Your task to perform on an android device: change the upload size in google photos Image 0: 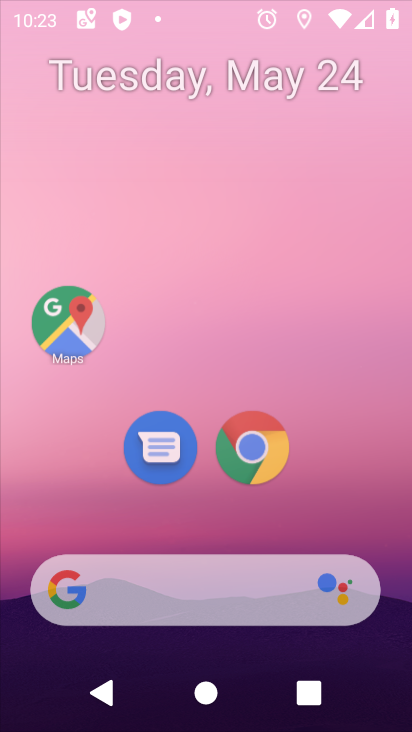
Step 0: drag from (381, 408) to (371, 201)
Your task to perform on an android device: change the upload size in google photos Image 1: 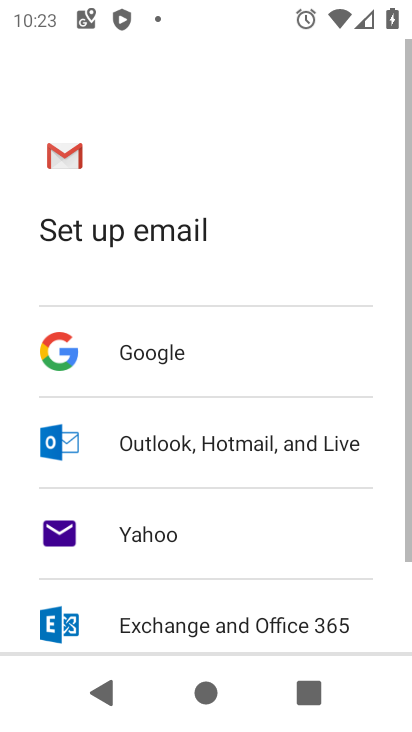
Step 1: press home button
Your task to perform on an android device: change the upload size in google photos Image 2: 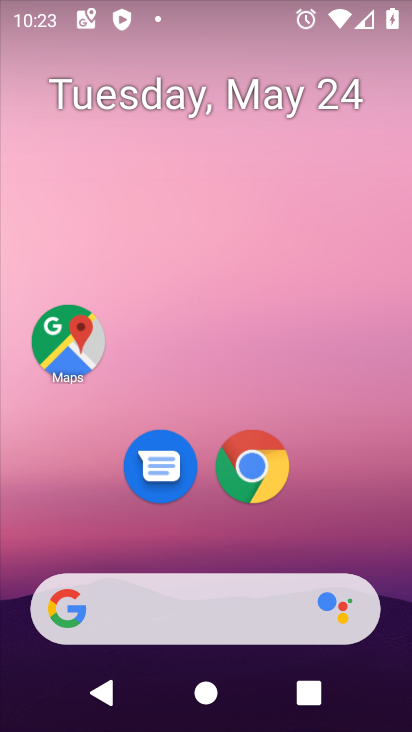
Step 2: drag from (394, 561) to (393, 274)
Your task to perform on an android device: change the upload size in google photos Image 3: 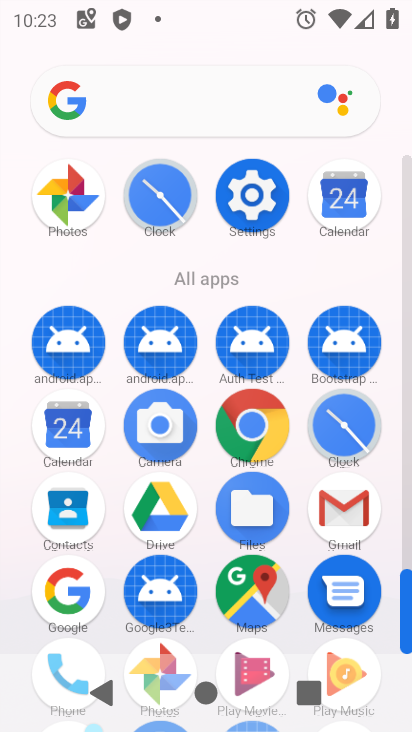
Step 3: drag from (378, 550) to (399, 266)
Your task to perform on an android device: change the upload size in google photos Image 4: 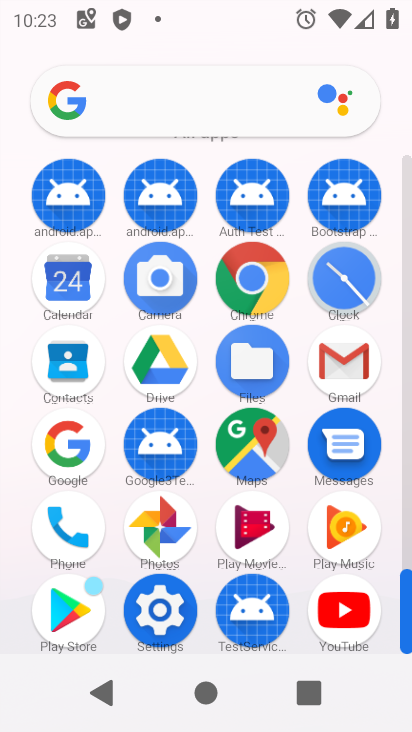
Step 4: click (162, 520)
Your task to perform on an android device: change the upload size in google photos Image 5: 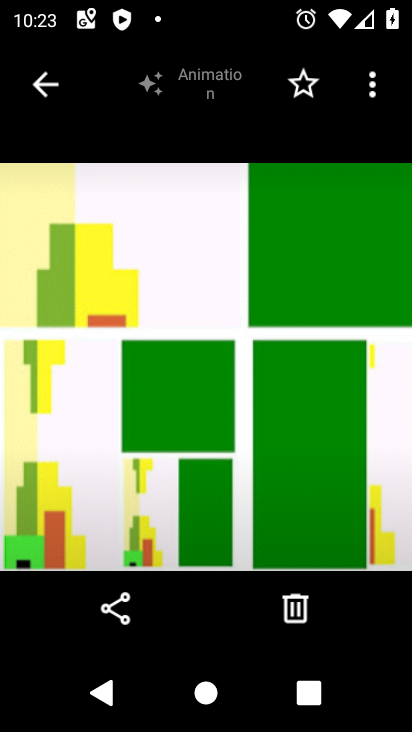
Step 5: press back button
Your task to perform on an android device: change the upload size in google photos Image 6: 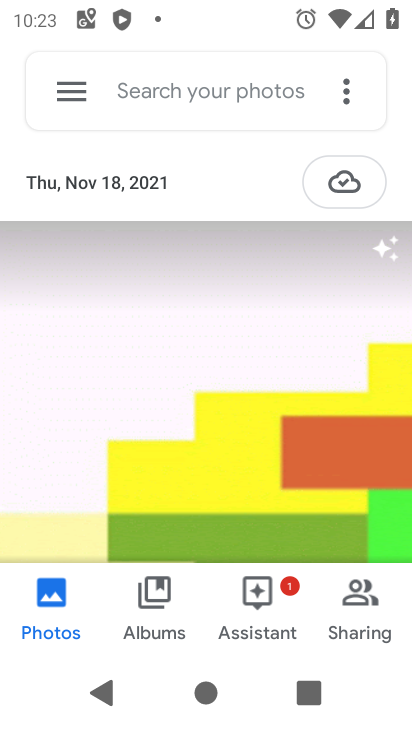
Step 6: click (82, 98)
Your task to perform on an android device: change the upload size in google photos Image 7: 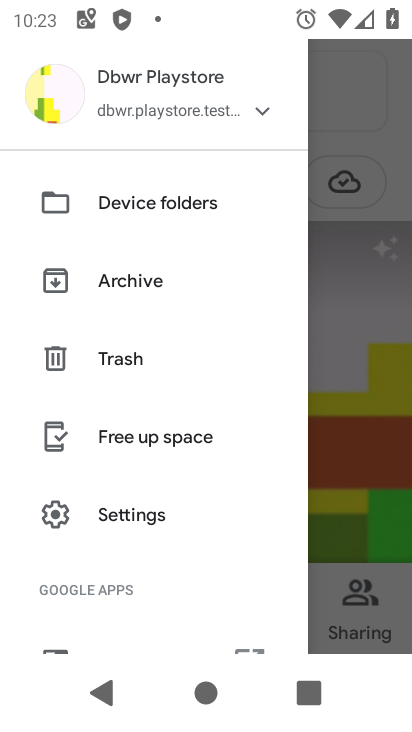
Step 7: drag from (239, 511) to (244, 449)
Your task to perform on an android device: change the upload size in google photos Image 8: 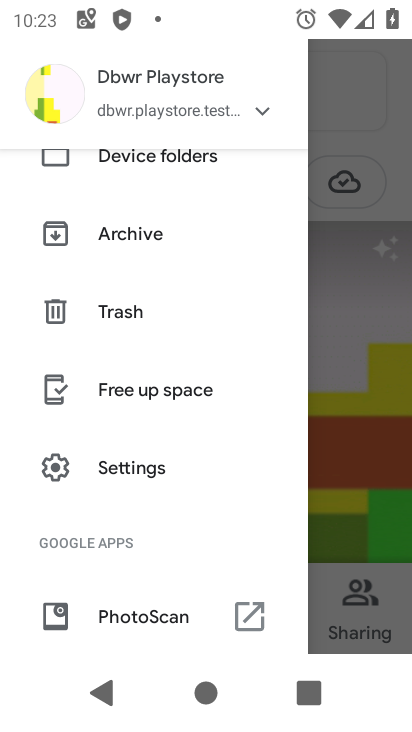
Step 8: click (198, 479)
Your task to perform on an android device: change the upload size in google photos Image 9: 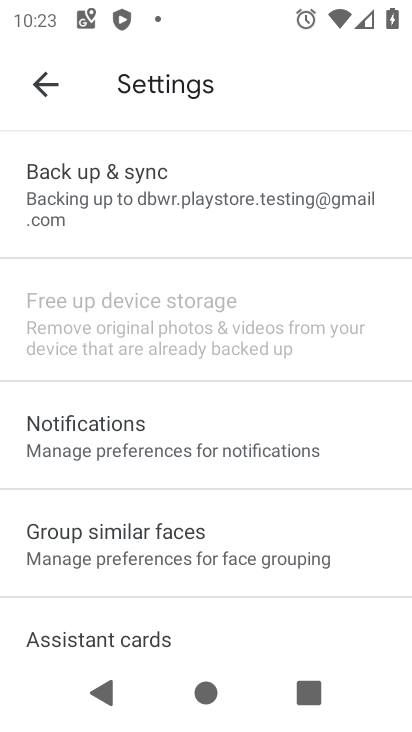
Step 9: click (244, 204)
Your task to perform on an android device: change the upload size in google photos Image 10: 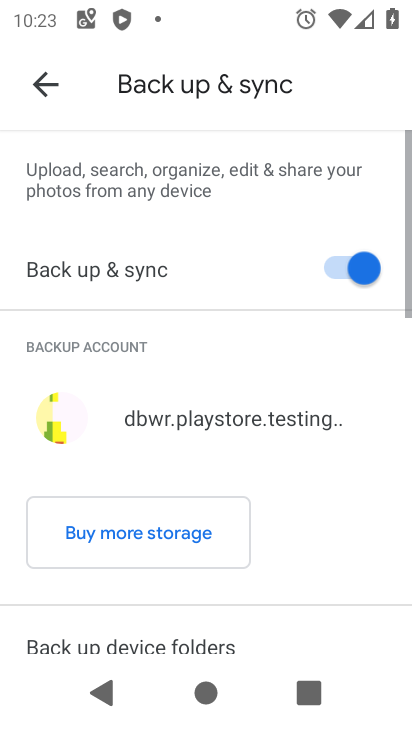
Step 10: drag from (270, 461) to (278, 390)
Your task to perform on an android device: change the upload size in google photos Image 11: 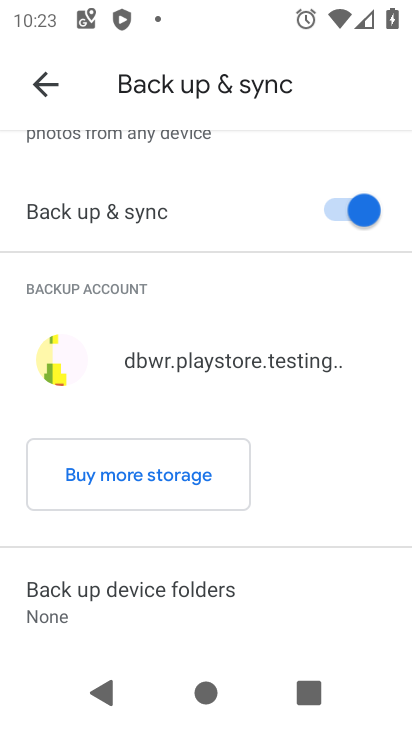
Step 11: drag from (274, 513) to (277, 415)
Your task to perform on an android device: change the upload size in google photos Image 12: 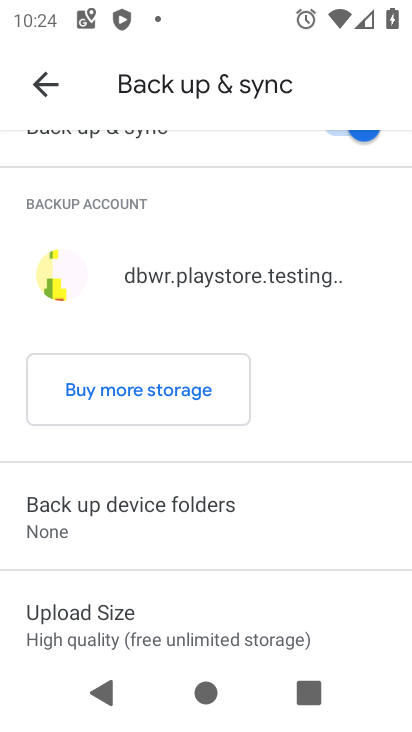
Step 12: drag from (280, 517) to (290, 401)
Your task to perform on an android device: change the upload size in google photos Image 13: 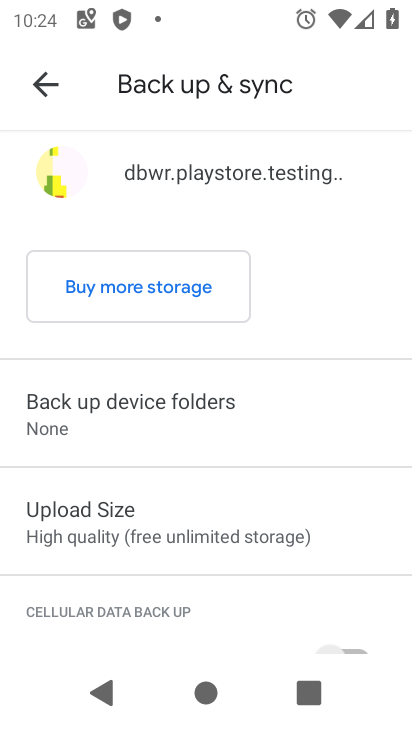
Step 13: drag from (292, 517) to (296, 426)
Your task to perform on an android device: change the upload size in google photos Image 14: 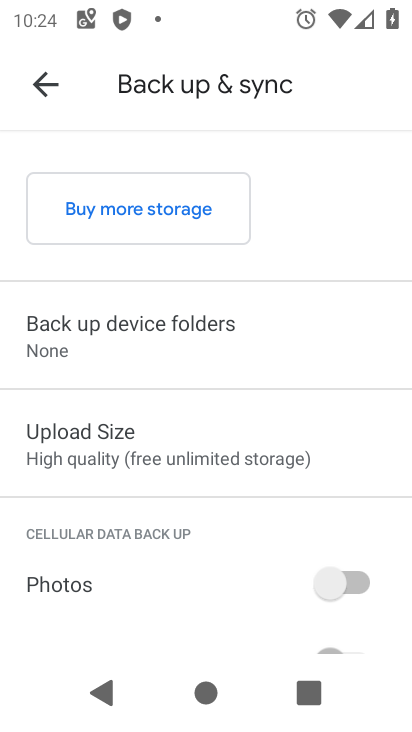
Step 14: drag from (260, 513) to (258, 437)
Your task to perform on an android device: change the upload size in google photos Image 15: 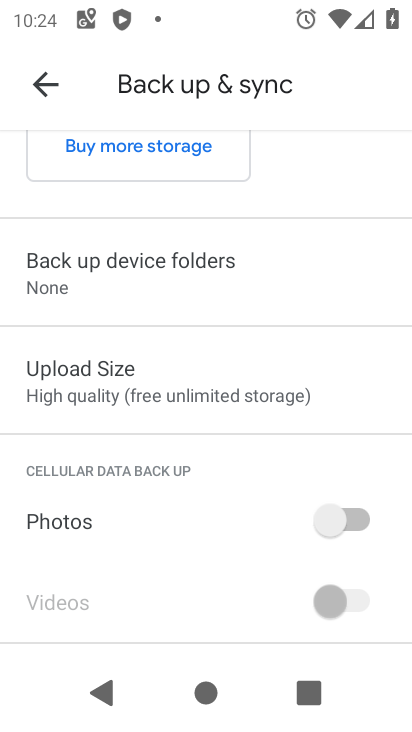
Step 15: click (238, 386)
Your task to perform on an android device: change the upload size in google photos Image 16: 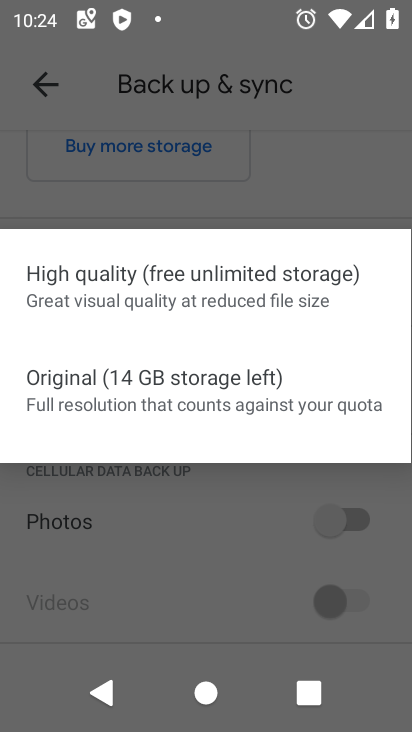
Step 16: click (238, 386)
Your task to perform on an android device: change the upload size in google photos Image 17: 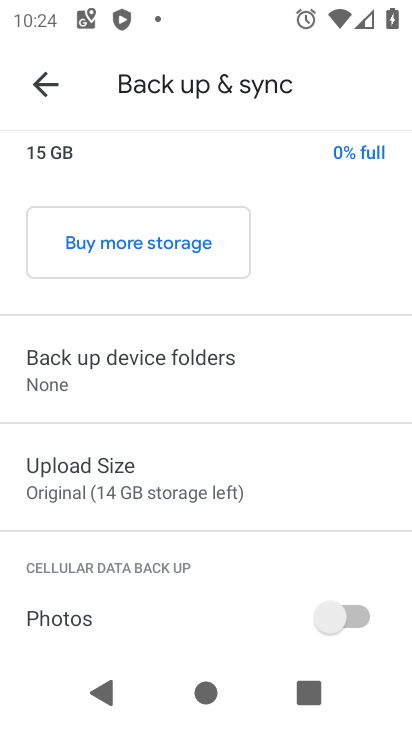
Step 17: task complete